Your task to perform on an android device: check google app version Image 0: 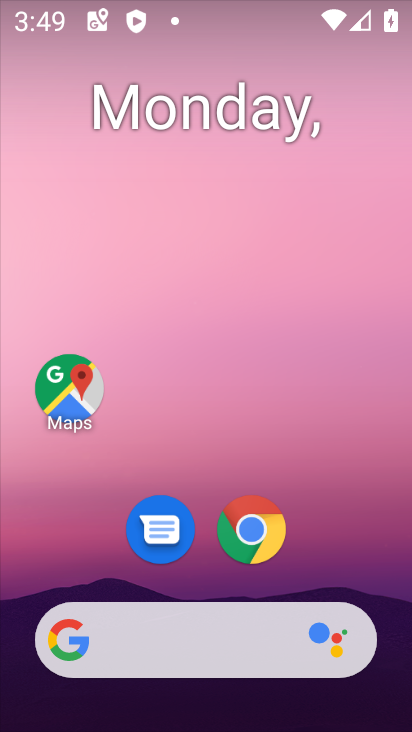
Step 0: click (59, 649)
Your task to perform on an android device: check google app version Image 1: 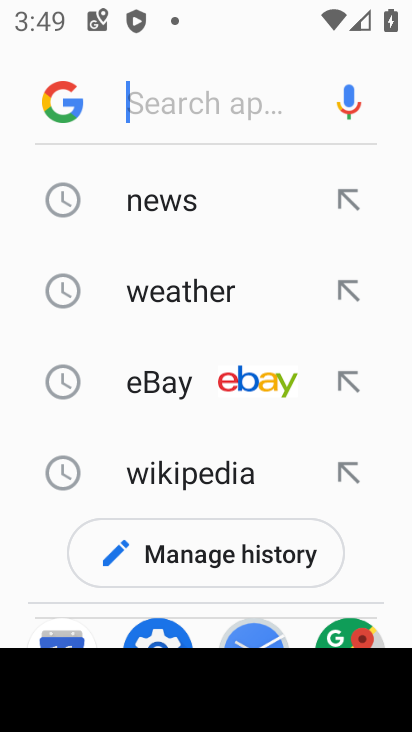
Step 1: click (62, 93)
Your task to perform on an android device: check google app version Image 2: 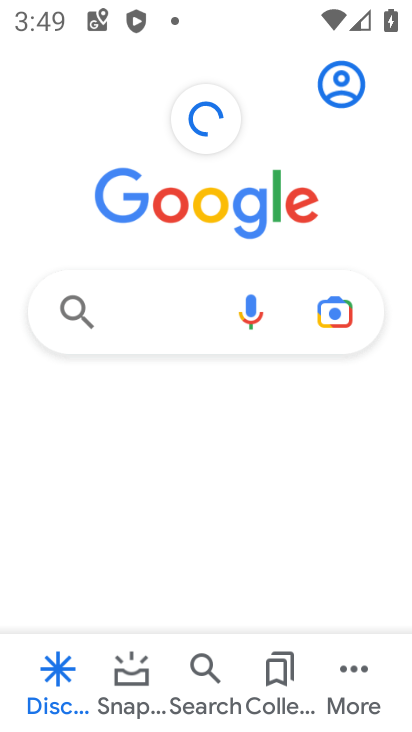
Step 2: click (366, 668)
Your task to perform on an android device: check google app version Image 3: 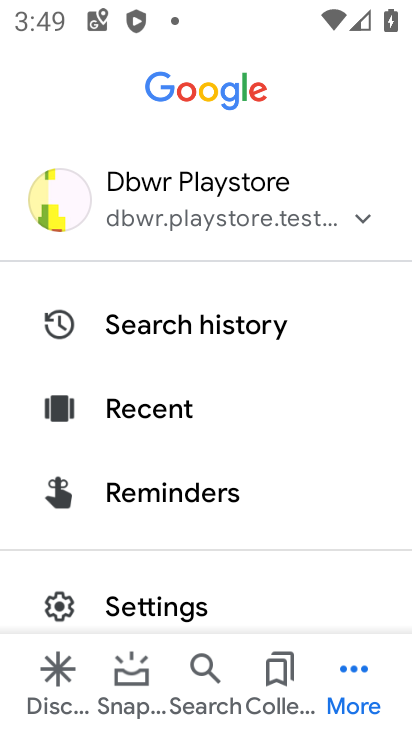
Step 3: click (179, 598)
Your task to perform on an android device: check google app version Image 4: 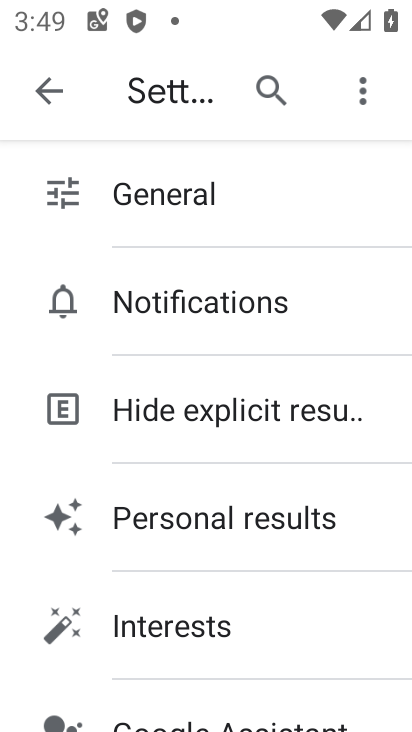
Step 4: drag from (209, 568) to (257, 171)
Your task to perform on an android device: check google app version Image 5: 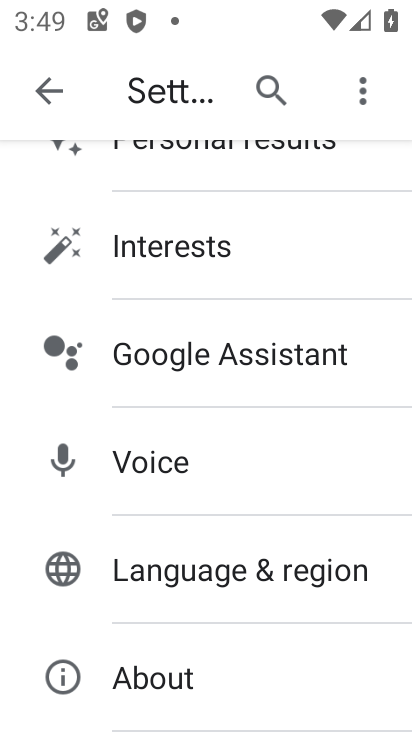
Step 5: click (242, 692)
Your task to perform on an android device: check google app version Image 6: 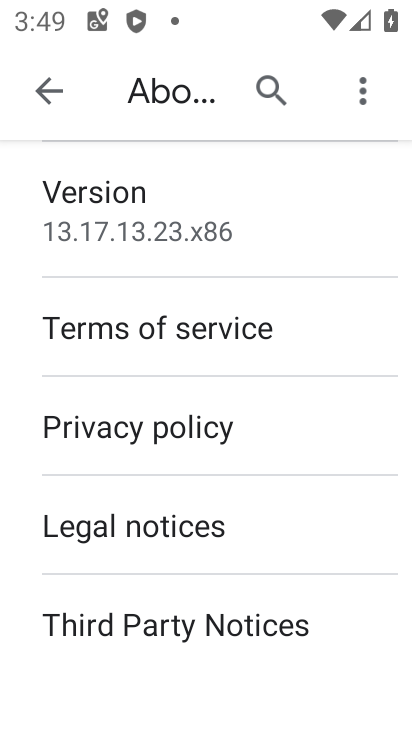
Step 6: task complete